Your task to perform on an android device: turn pop-ups on in chrome Image 0: 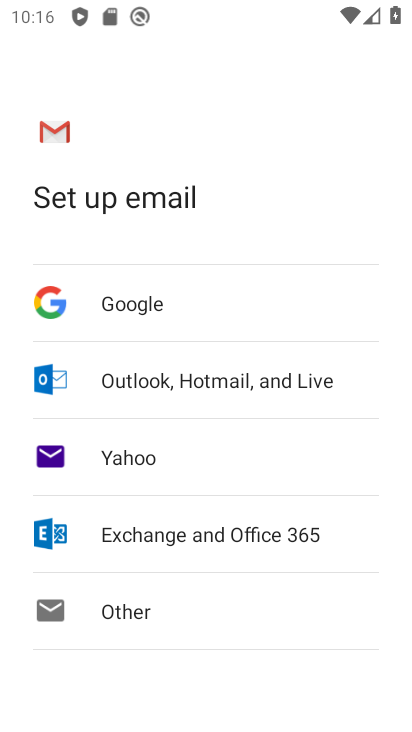
Step 0: click (17, 63)
Your task to perform on an android device: turn pop-ups on in chrome Image 1: 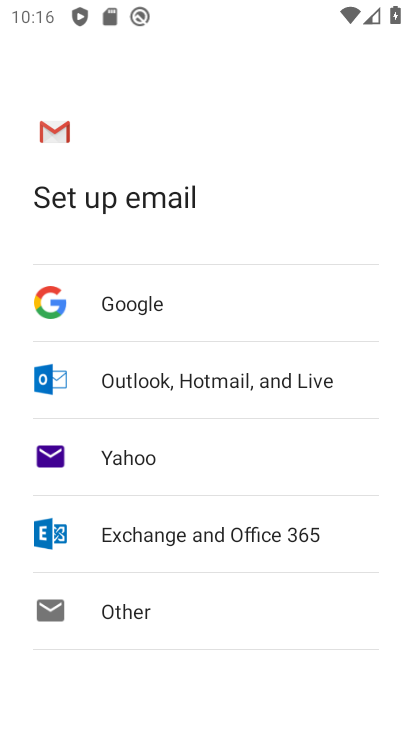
Step 1: press back button
Your task to perform on an android device: turn pop-ups on in chrome Image 2: 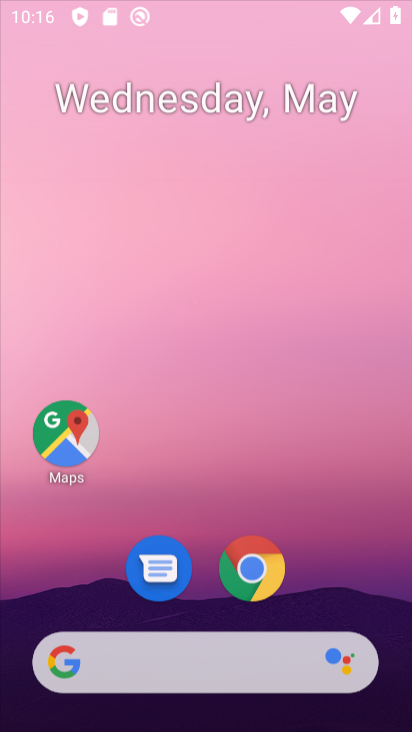
Step 2: press home button
Your task to perform on an android device: turn pop-ups on in chrome Image 3: 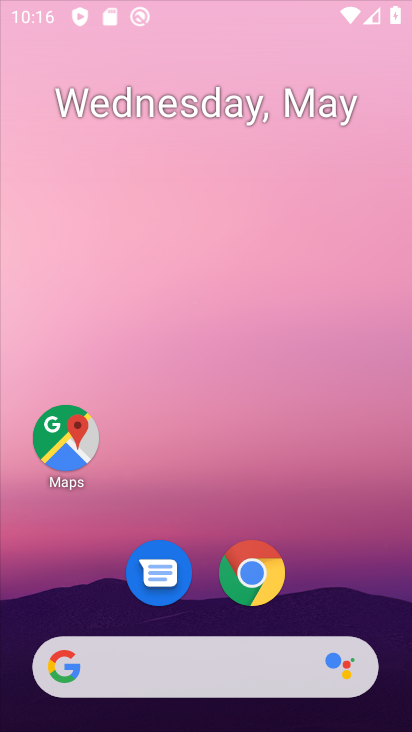
Step 3: click (230, 1)
Your task to perform on an android device: turn pop-ups on in chrome Image 4: 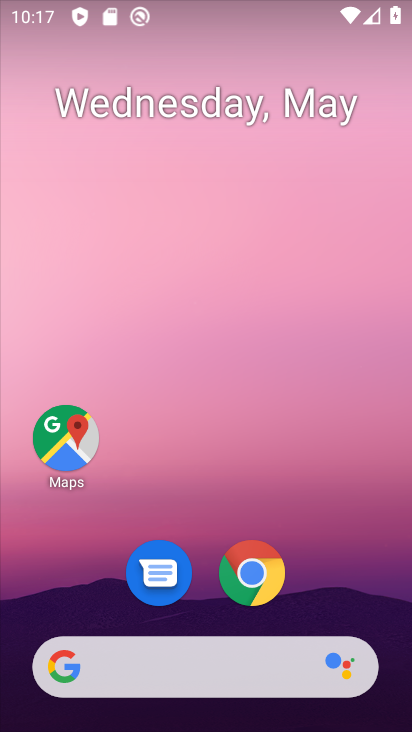
Step 4: drag from (372, 576) to (181, 62)
Your task to perform on an android device: turn pop-ups on in chrome Image 5: 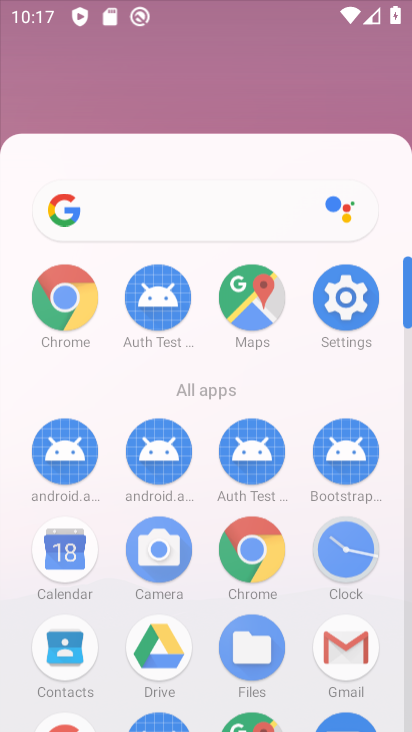
Step 5: drag from (309, 468) to (1, 14)
Your task to perform on an android device: turn pop-ups on in chrome Image 6: 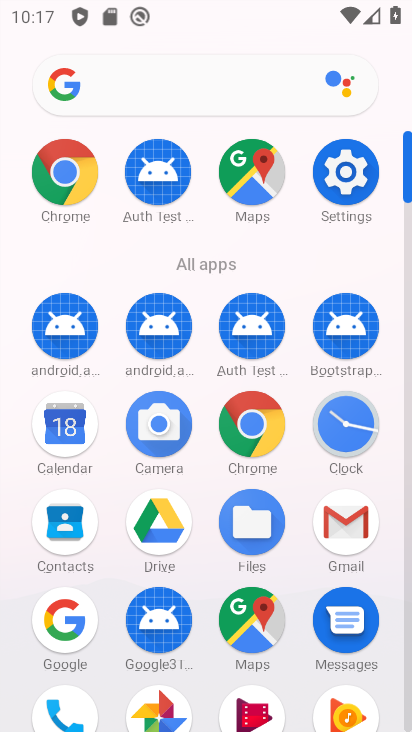
Step 6: click (60, 173)
Your task to perform on an android device: turn pop-ups on in chrome Image 7: 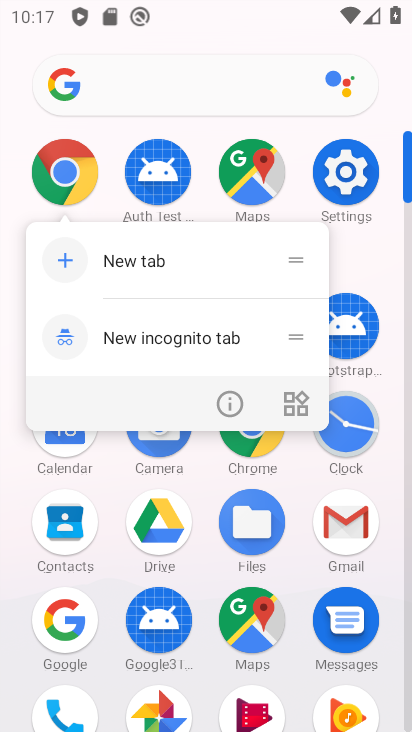
Step 7: click (60, 187)
Your task to perform on an android device: turn pop-ups on in chrome Image 8: 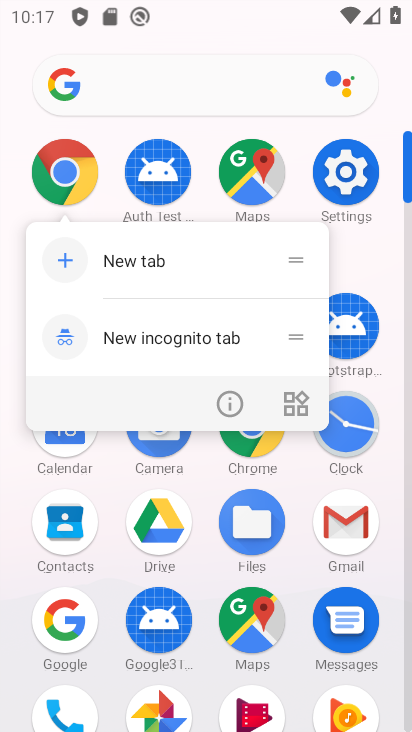
Step 8: click (63, 182)
Your task to perform on an android device: turn pop-ups on in chrome Image 9: 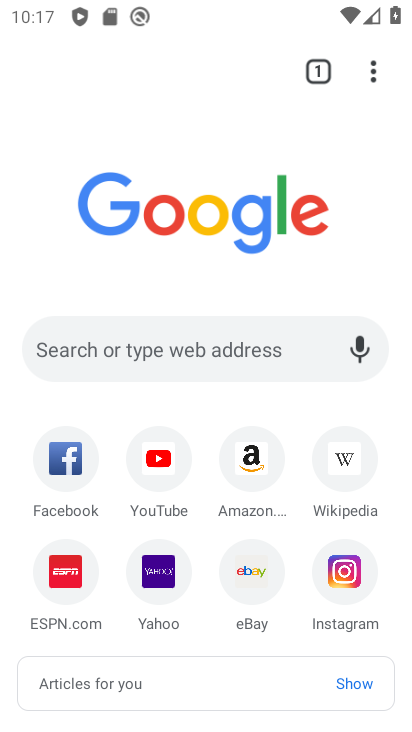
Step 9: click (67, 180)
Your task to perform on an android device: turn pop-ups on in chrome Image 10: 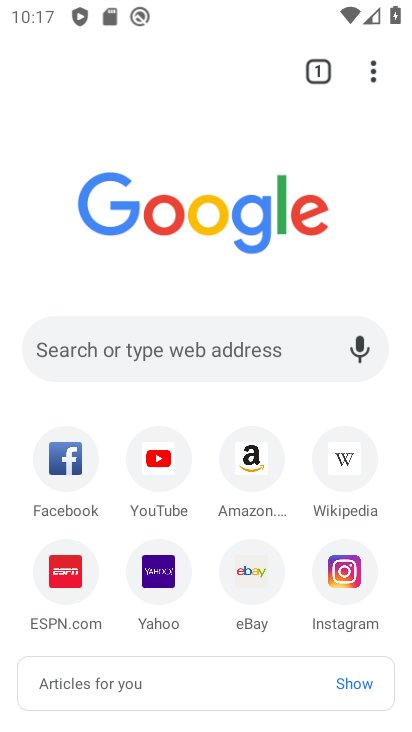
Step 10: click (73, 174)
Your task to perform on an android device: turn pop-ups on in chrome Image 11: 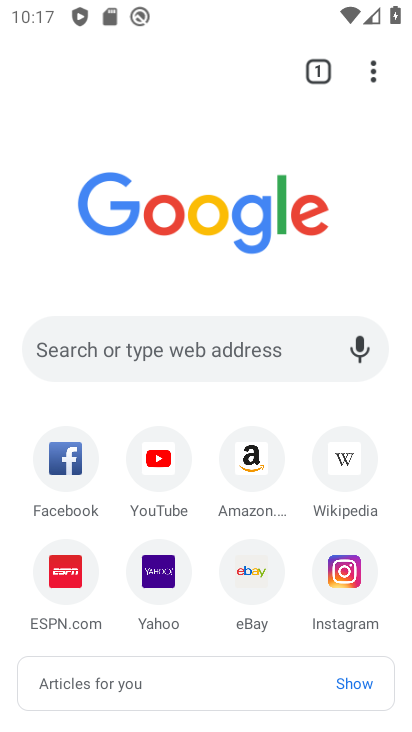
Step 11: click (73, 174)
Your task to perform on an android device: turn pop-ups on in chrome Image 12: 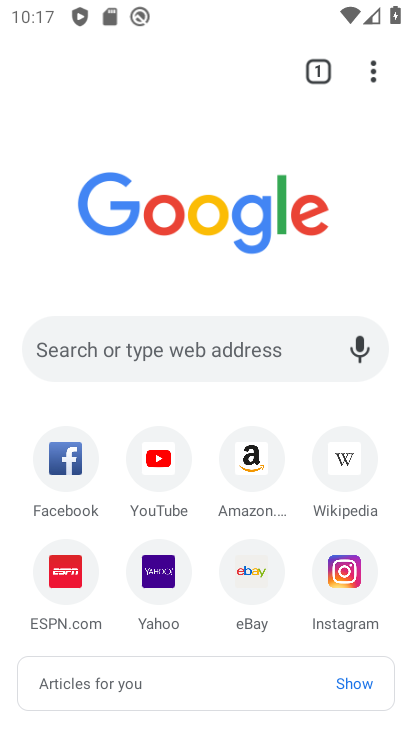
Step 12: click (74, 165)
Your task to perform on an android device: turn pop-ups on in chrome Image 13: 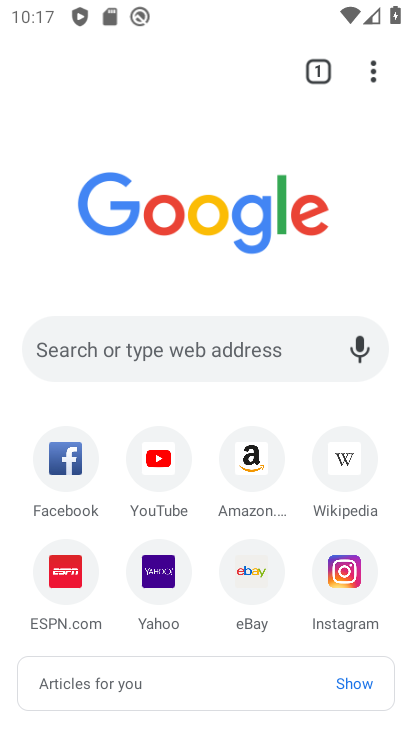
Step 13: click (369, 76)
Your task to perform on an android device: turn pop-ups on in chrome Image 14: 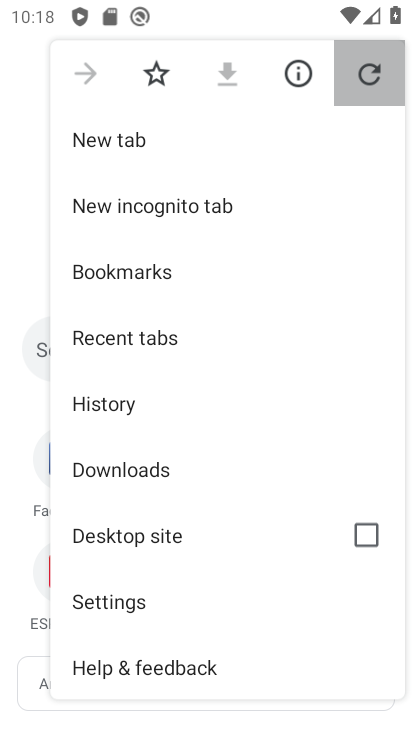
Step 14: click (377, 75)
Your task to perform on an android device: turn pop-ups on in chrome Image 15: 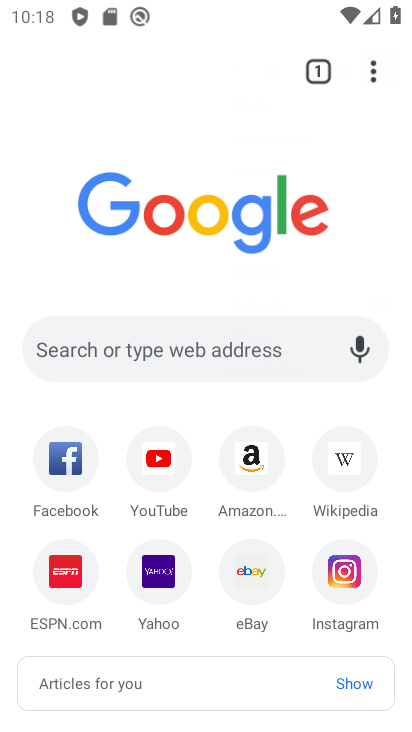
Step 15: click (377, 75)
Your task to perform on an android device: turn pop-ups on in chrome Image 16: 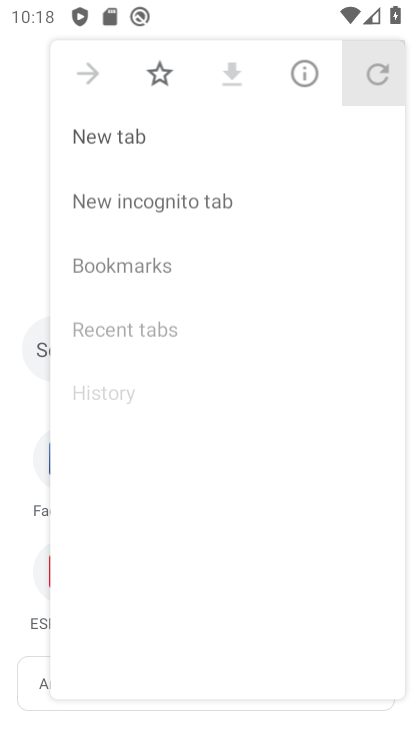
Step 16: click (377, 75)
Your task to perform on an android device: turn pop-ups on in chrome Image 17: 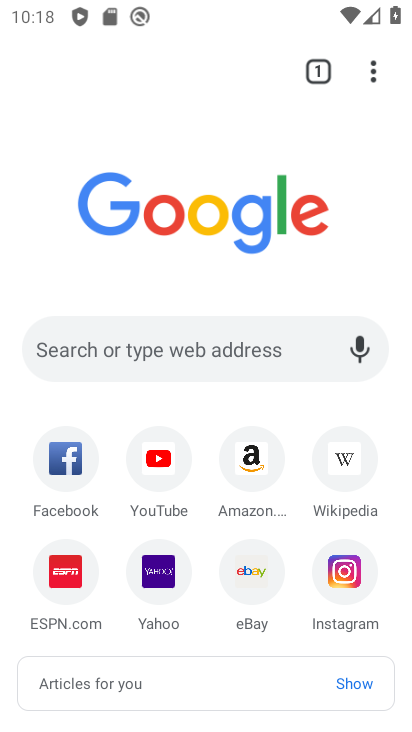
Step 17: drag from (371, 78) to (101, 609)
Your task to perform on an android device: turn pop-ups on in chrome Image 18: 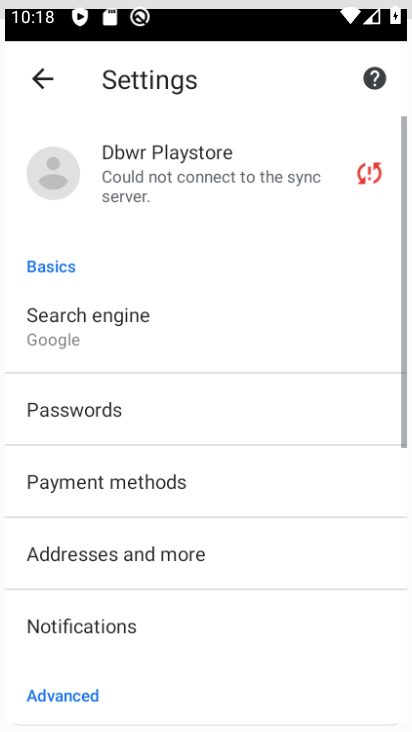
Step 18: click (101, 609)
Your task to perform on an android device: turn pop-ups on in chrome Image 19: 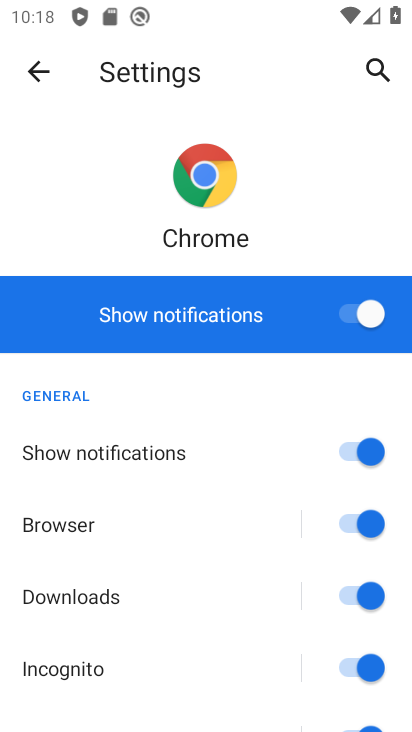
Step 19: click (204, 27)
Your task to perform on an android device: turn pop-ups on in chrome Image 20: 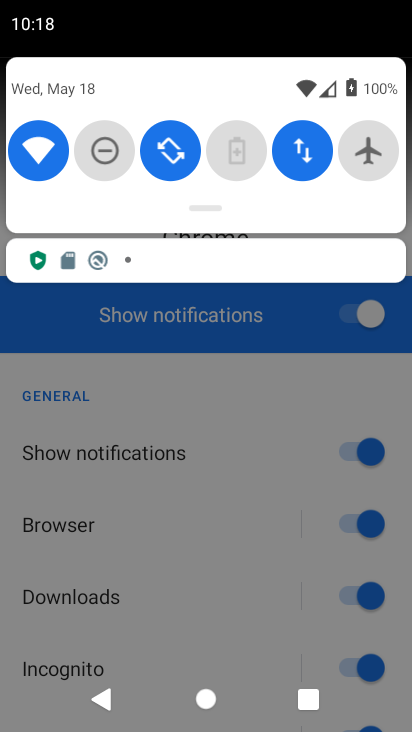
Step 20: drag from (263, 539) to (187, 52)
Your task to perform on an android device: turn pop-ups on in chrome Image 21: 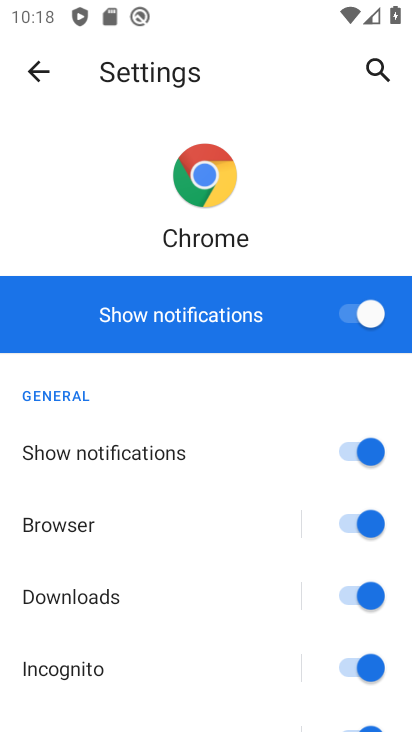
Step 21: click (28, 65)
Your task to perform on an android device: turn pop-ups on in chrome Image 22: 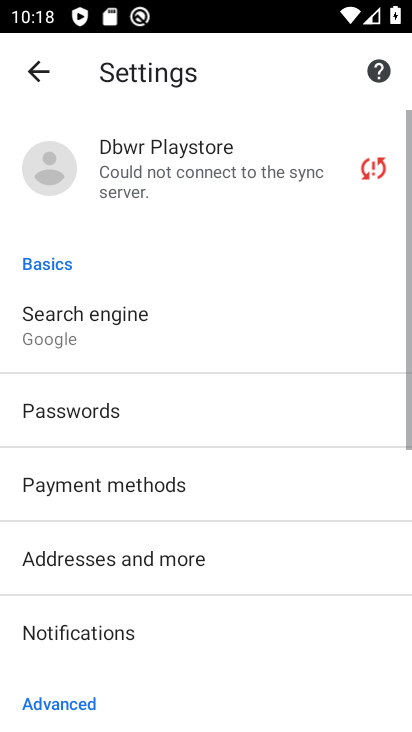
Step 22: click (38, 71)
Your task to perform on an android device: turn pop-ups on in chrome Image 23: 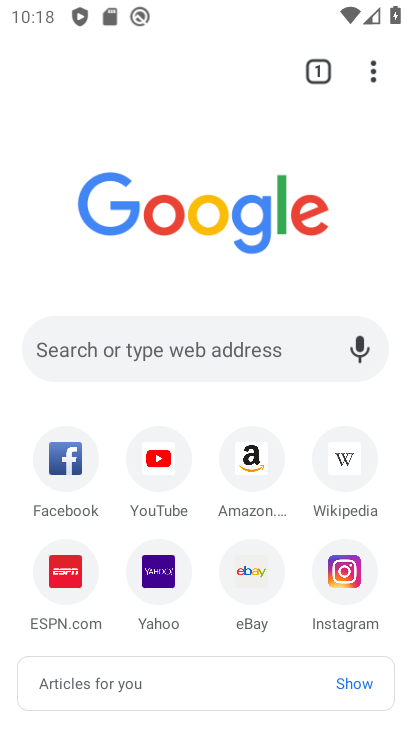
Step 23: drag from (367, 74) to (103, 598)
Your task to perform on an android device: turn pop-ups on in chrome Image 24: 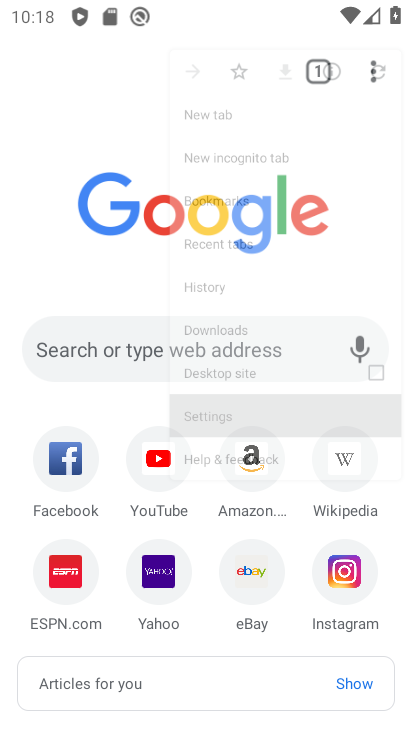
Step 24: click (97, 595)
Your task to perform on an android device: turn pop-ups on in chrome Image 25: 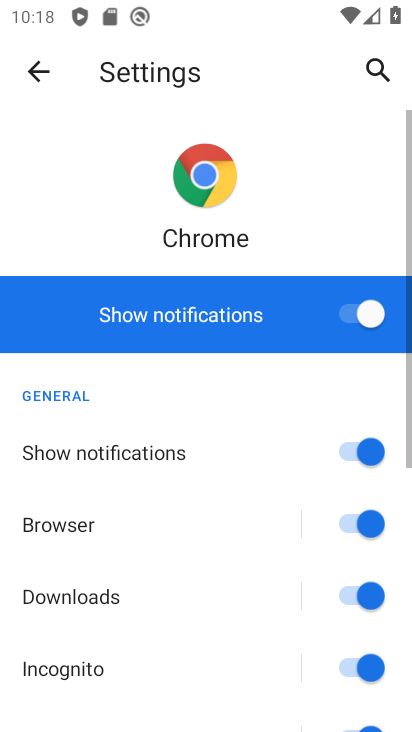
Step 25: click (34, 63)
Your task to perform on an android device: turn pop-ups on in chrome Image 26: 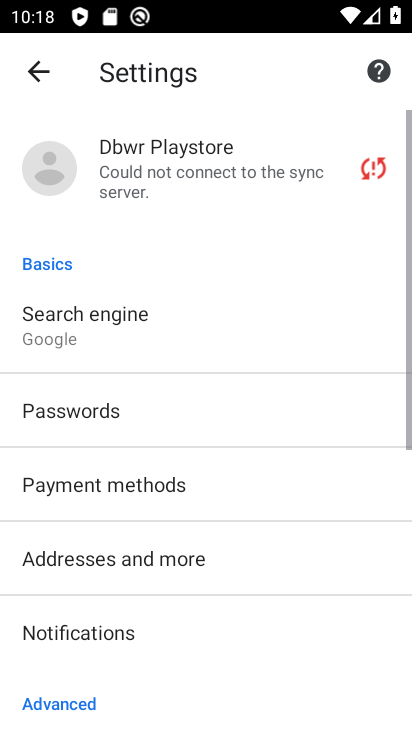
Step 26: drag from (168, 470) to (116, 60)
Your task to perform on an android device: turn pop-ups on in chrome Image 27: 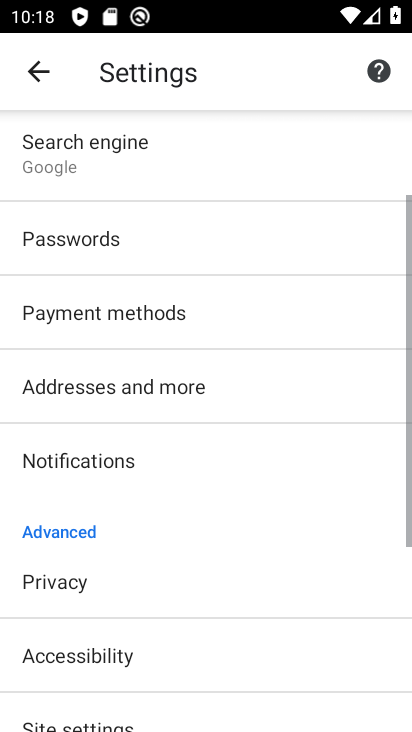
Step 27: drag from (224, 430) to (219, 33)
Your task to perform on an android device: turn pop-ups on in chrome Image 28: 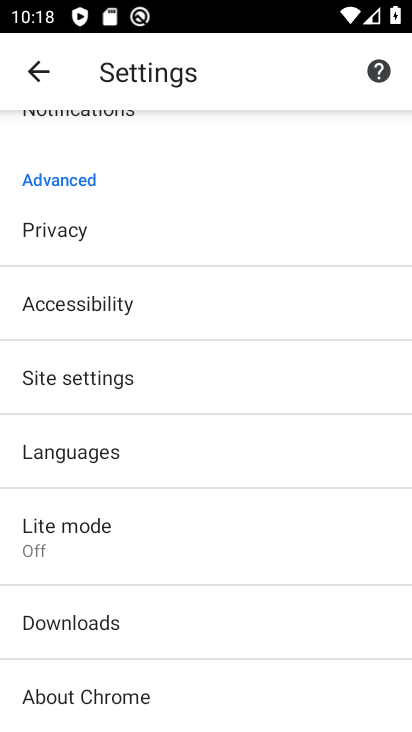
Step 28: click (67, 372)
Your task to perform on an android device: turn pop-ups on in chrome Image 29: 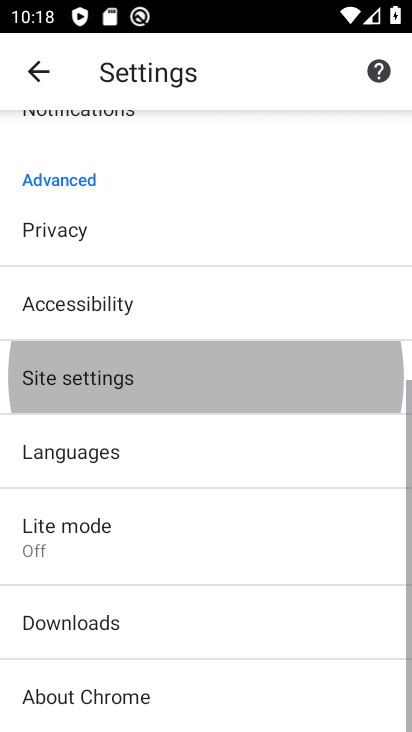
Step 29: click (67, 372)
Your task to perform on an android device: turn pop-ups on in chrome Image 30: 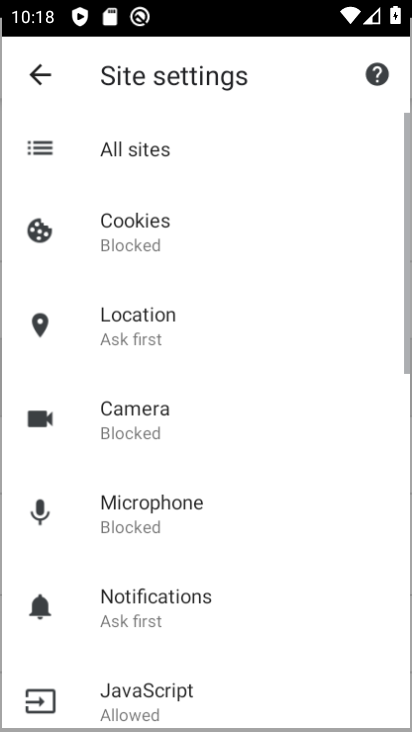
Step 30: click (67, 372)
Your task to perform on an android device: turn pop-ups on in chrome Image 31: 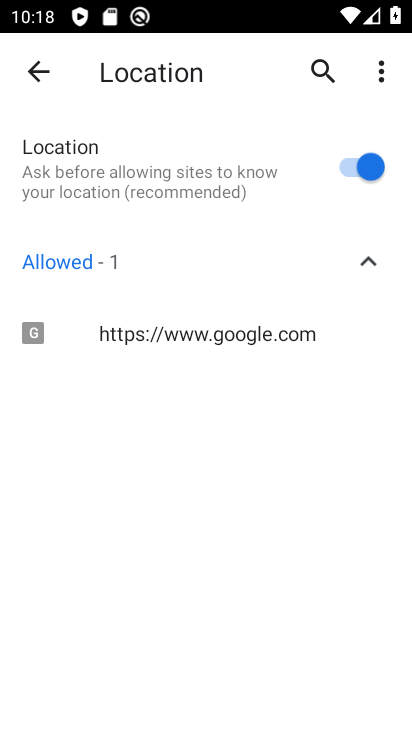
Step 31: click (40, 69)
Your task to perform on an android device: turn pop-ups on in chrome Image 32: 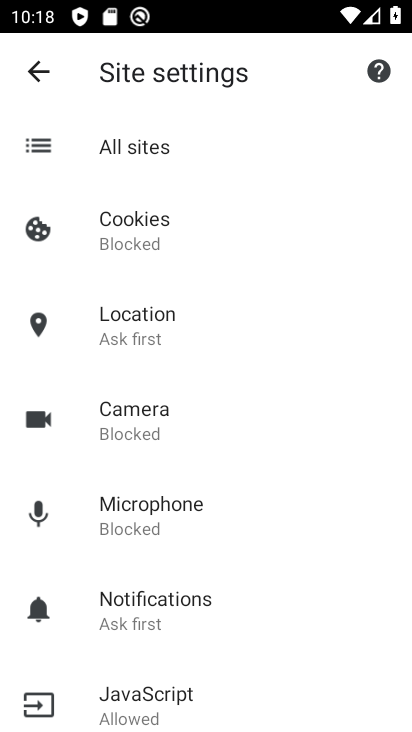
Step 32: drag from (151, 583) to (116, 59)
Your task to perform on an android device: turn pop-ups on in chrome Image 33: 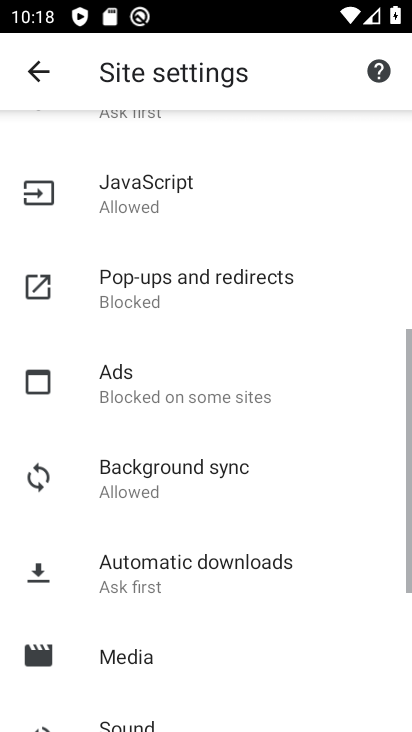
Step 33: drag from (169, 475) to (160, 73)
Your task to perform on an android device: turn pop-ups on in chrome Image 34: 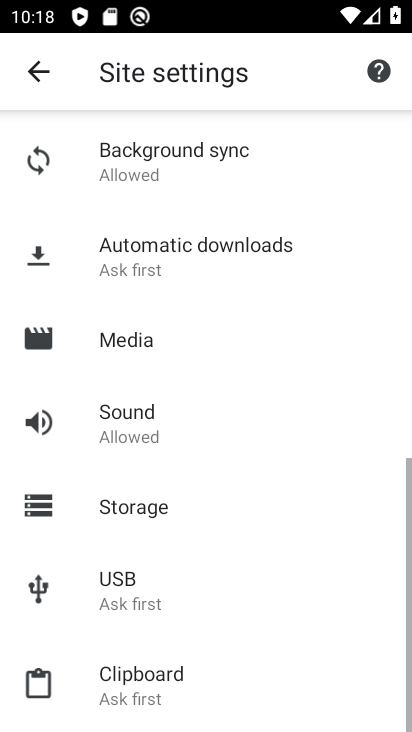
Step 34: drag from (118, 253) to (166, 600)
Your task to perform on an android device: turn pop-ups on in chrome Image 35: 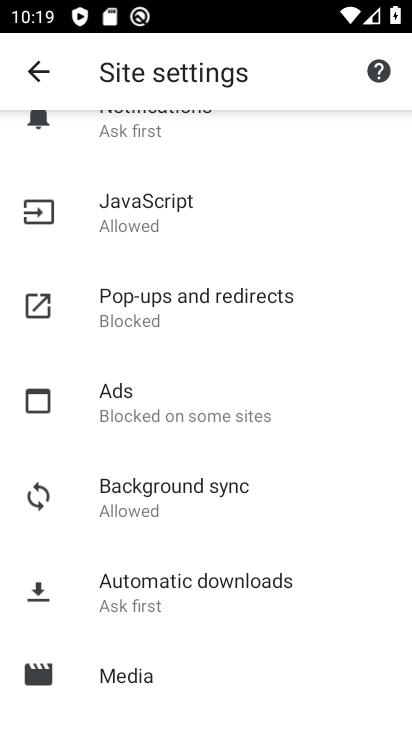
Step 35: click (132, 310)
Your task to perform on an android device: turn pop-ups on in chrome Image 36: 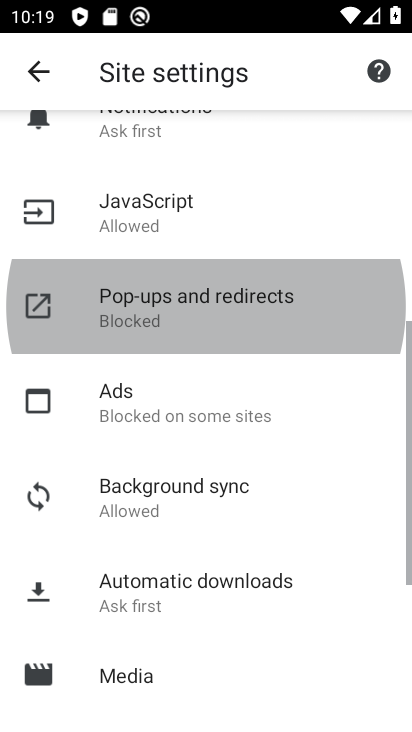
Step 36: click (132, 310)
Your task to perform on an android device: turn pop-ups on in chrome Image 37: 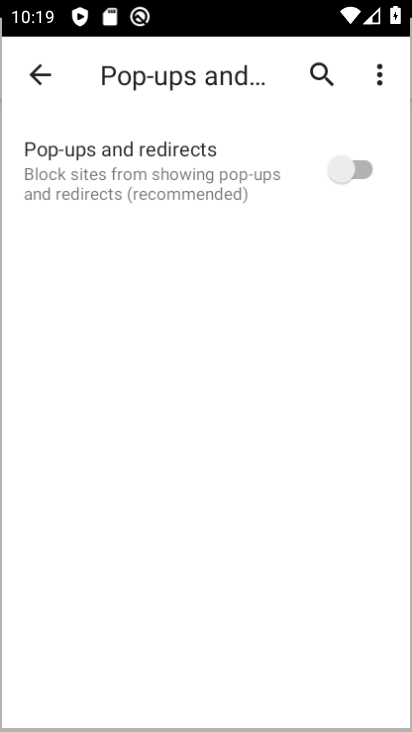
Step 37: click (132, 310)
Your task to perform on an android device: turn pop-ups on in chrome Image 38: 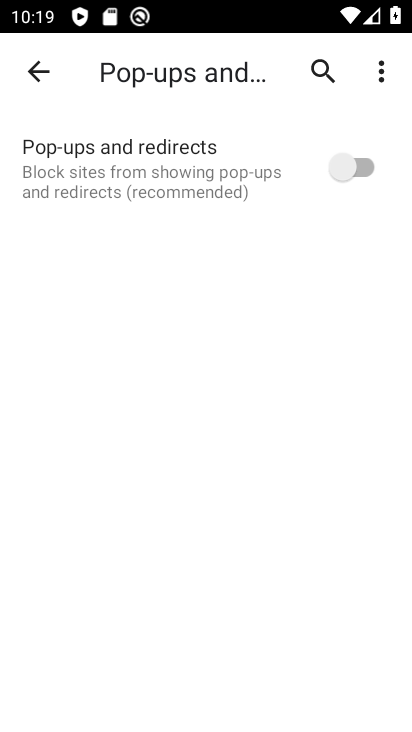
Step 38: click (348, 159)
Your task to perform on an android device: turn pop-ups on in chrome Image 39: 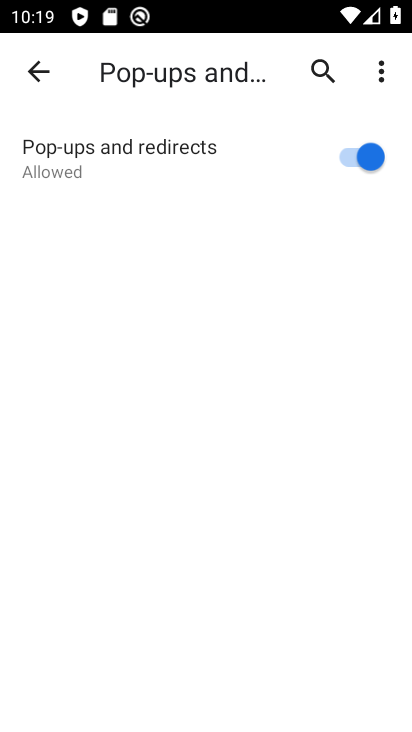
Step 39: task complete